Your task to perform on an android device: turn vacation reply on in the gmail app Image 0: 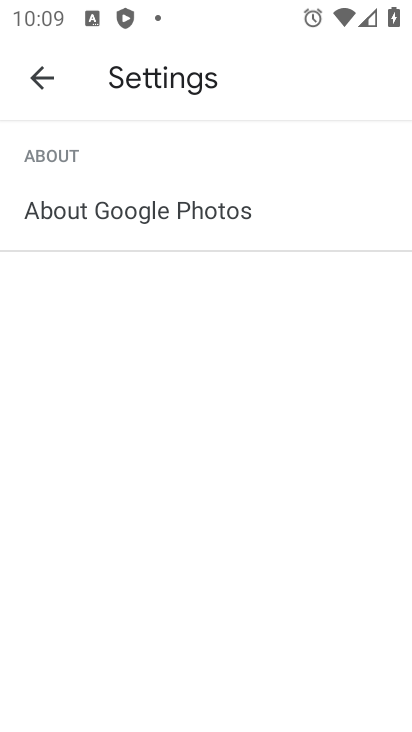
Step 0: press home button
Your task to perform on an android device: turn vacation reply on in the gmail app Image 1: 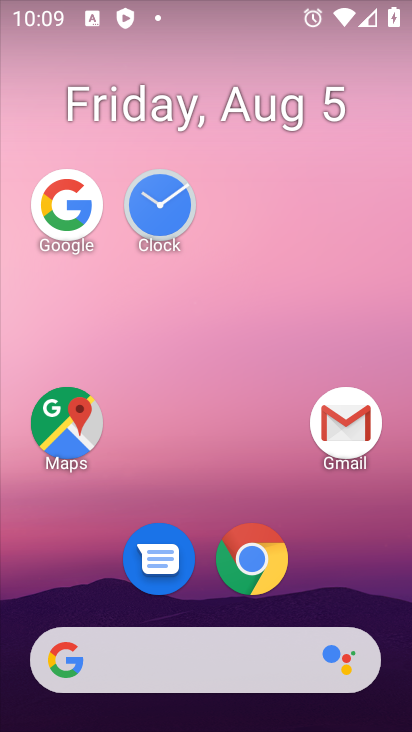
Step 1: click (355, 423)
Your task to perform on an android device: turn vacation reply on in the gmail app Image 2: 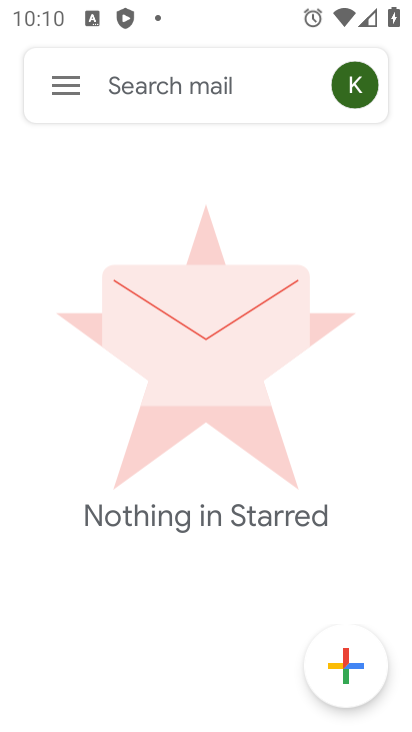
Step 2: click (76, 98)
Your task to perform on an android device: turn vacation reply on in the gmail app Image 3: 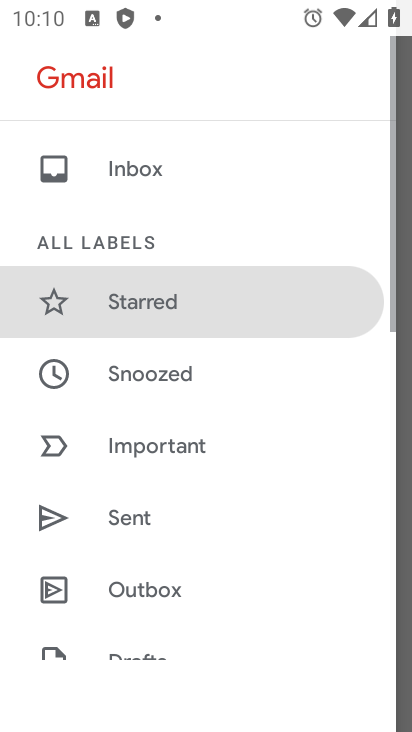
Step 3: drag from (156, 551) to (150, 120)
Your task to perform on an android device: turn vacation reply on in the gmail app Image 4: 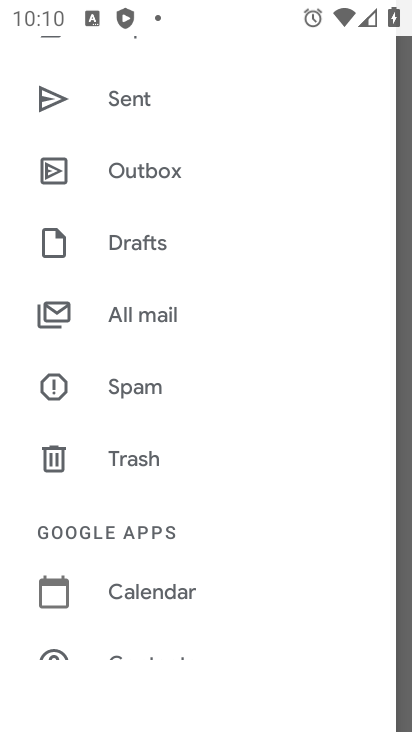
Step 4: drag from (192, 578) to (180, 122)
Your task to perform on an android device: turn vacation reply on in the gmail app Image 5: 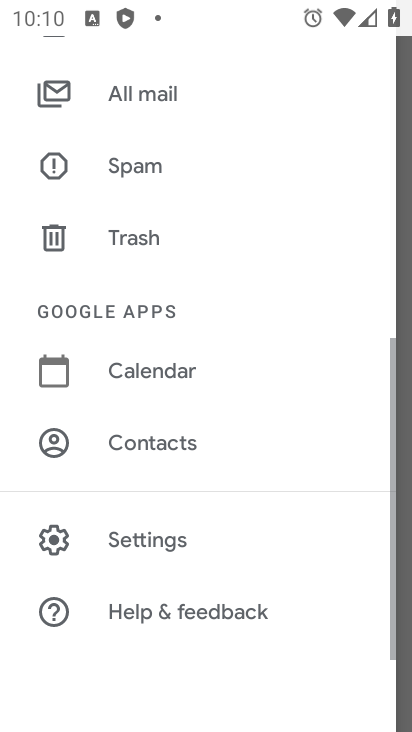
Step 5: click (181, 551)
Your task to perform on an android device: turn vacation reply on in the gmail app Image 6: 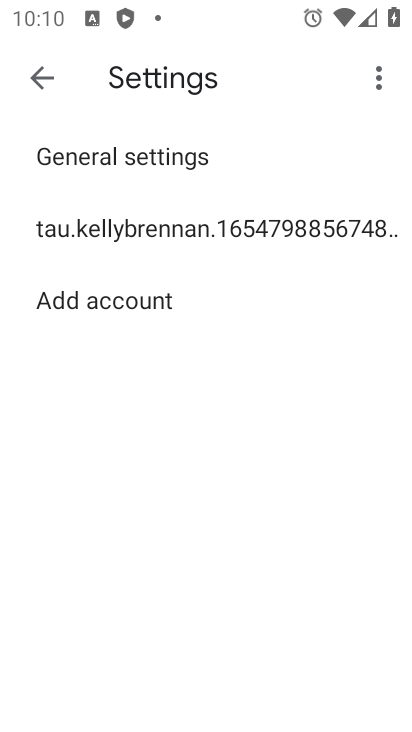
Step 6: click (217, 218)
Your task to perform on an android device: turn vacation reply on in the gmail app Image 7: 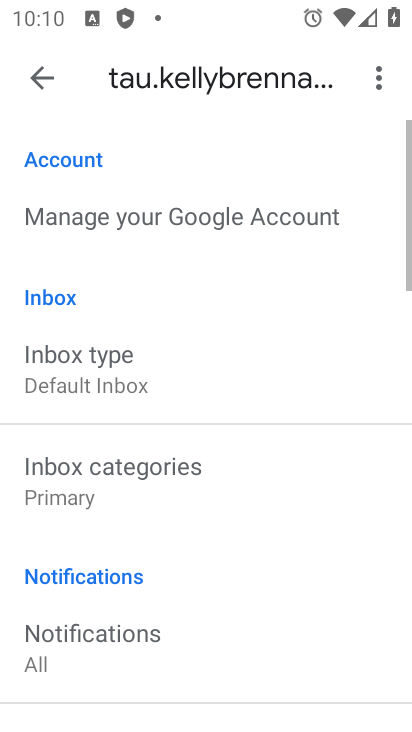
Step 7: drag from (258, 604) to (237, 181)
Your task to perform on an android device: turn vacation reply on in the gmail app Image 8: 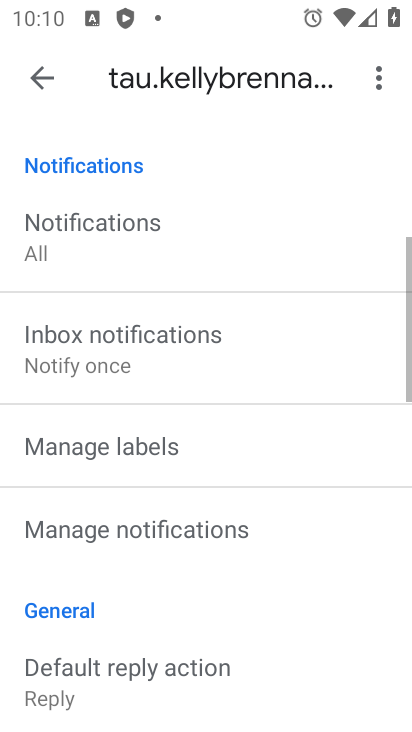
Step 8: drag from (257, 601) to (191, 201)
Your task to perform on an android device: turn vacation reply on in the gmail app Image 9: 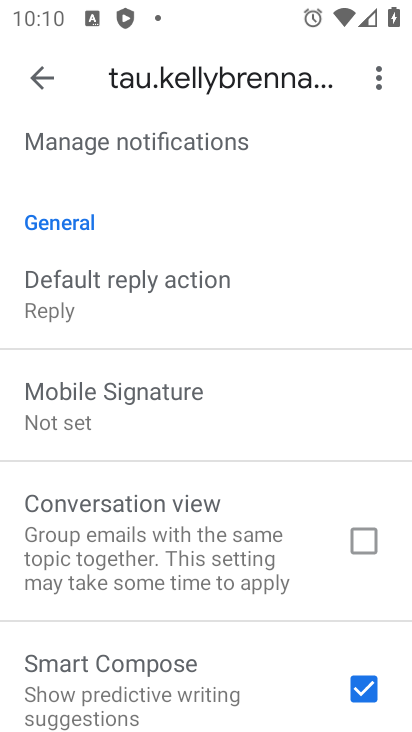
Step 9: drag from (204, 583) to (173, 173)
Your task to perform on an android device: turn vacation reply on in the gmail app Image 10: 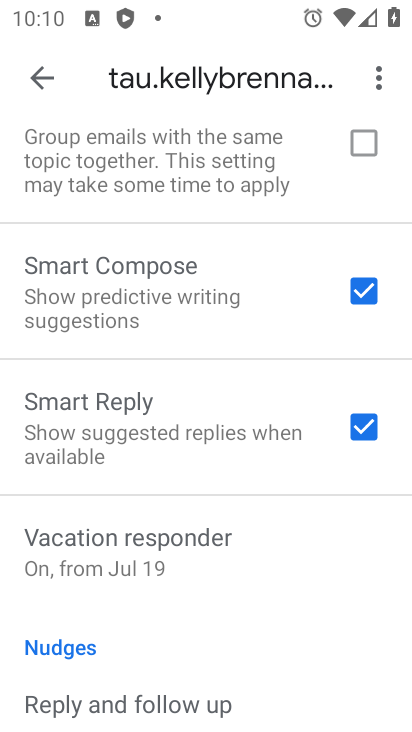
Step 10: click (241, 535)
Your task to perform on an android device: turn vacation reply on in the gmail app Image 11: 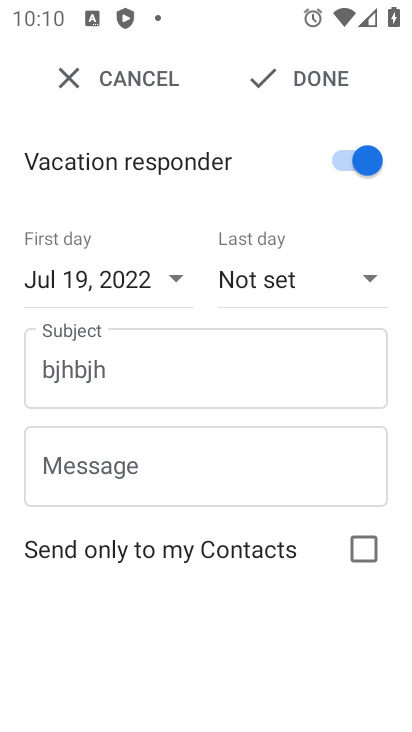
Step 11: click (338, 81)
Your task to perform on an android device: turn vacation reply on in the gmail app Image 12: 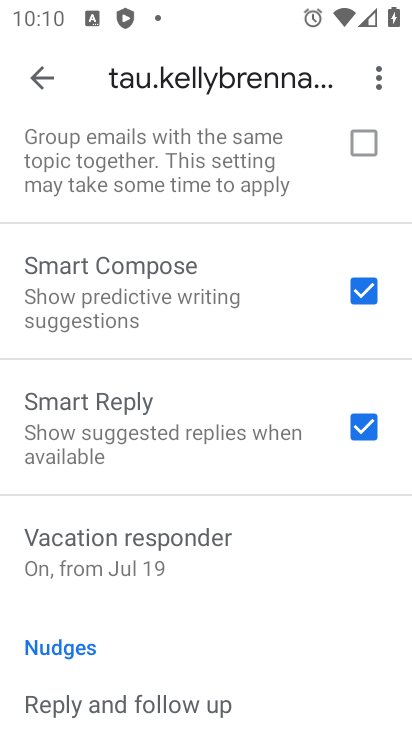
Step 12: task complete